Your task to perform on an android device: toggle airplane mode Image 0: 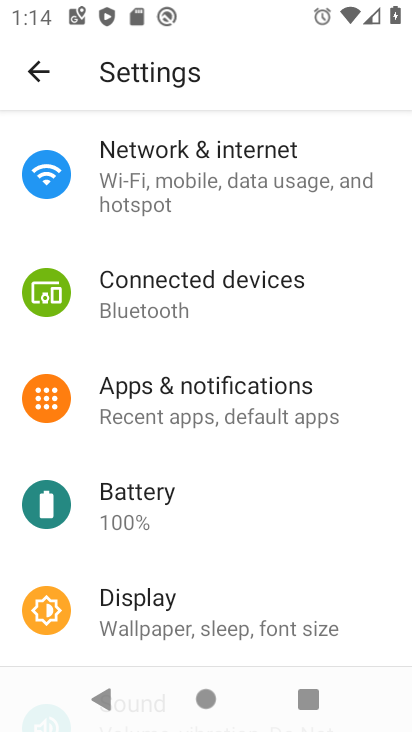
Step 0: drag from (214, 207) to (206, 449)
Your task to perform on an android device: toggle airplane mode Image 1: 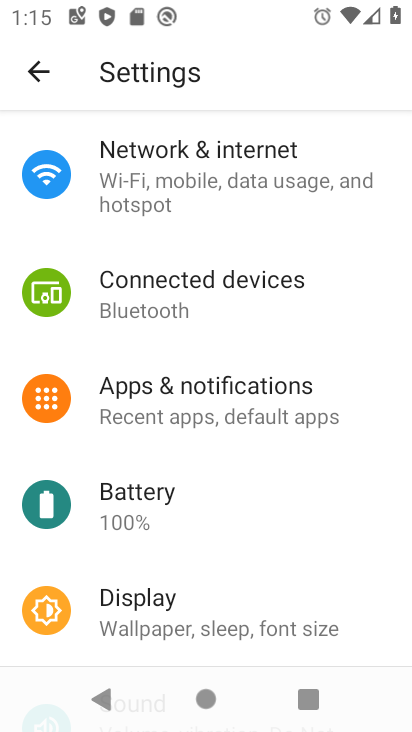
Step 1: click (209, 170)
Your task to perform on an android device: toggle airplane mode Image 2: 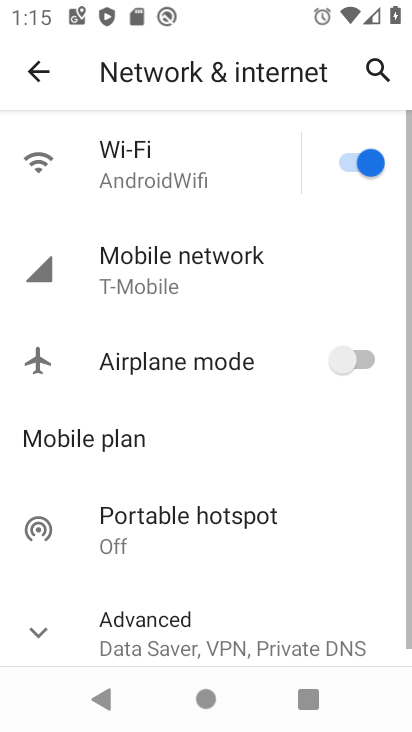
Step 2: click (357, 358)
Your task to perform on an android device: toggle airplane mode Image 3: 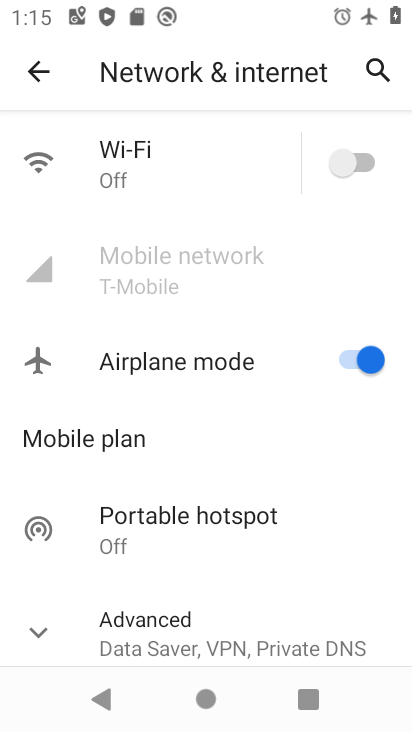
Step 3: task complete